Your task to perform on an android device: Toggle the flashlight Image 0: 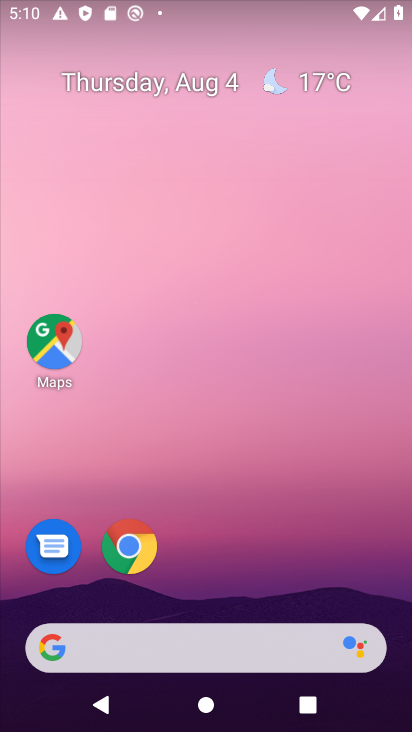
Step 0: drag from (196, 562) to (230, 28)
Your task to perform on an android device: Toggle the flashlight Image 1: 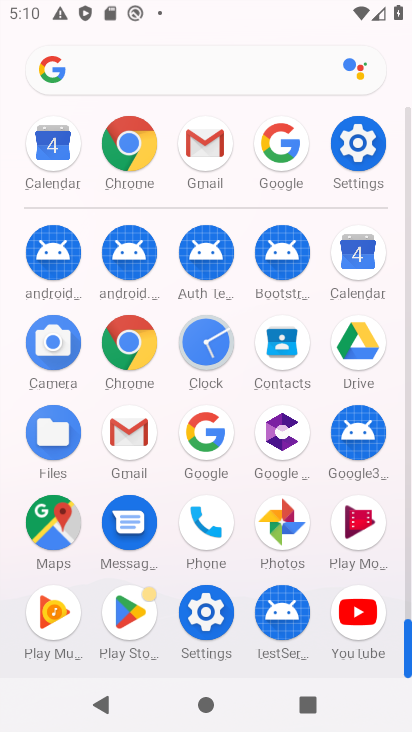
Step 1: task complete